Your task to perform on an android device: Find coffee shops on Maps Image 0: 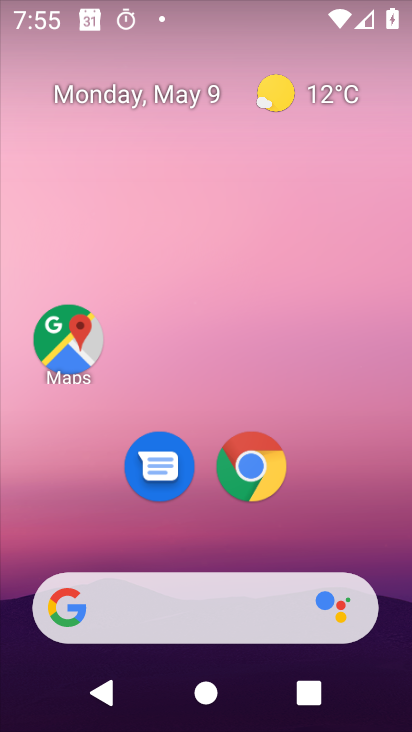
Step 0: drag from (347, 543) to (138, 50)
Your task to perform on an android device: Find coffee shops on Maps Image 1: 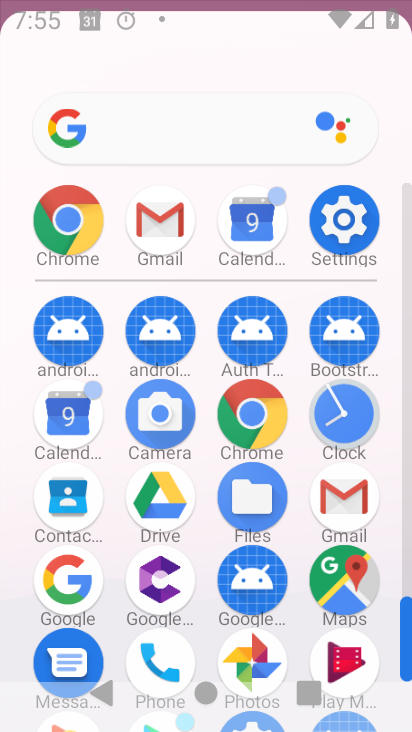
Step 1: drag from (320, 483) to (63, 350)
Your task to perform on an android device: Find coffee shops on Maps Image 2: 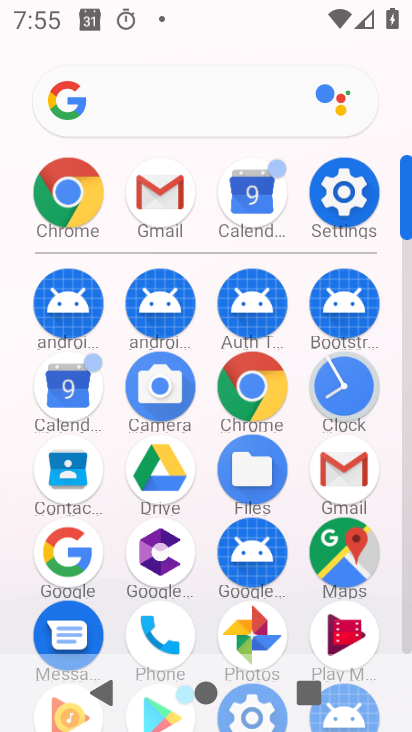
Step 2: click (339, 564)
Your task to perform on an android device: Find coffee shops on Maps Image 3: 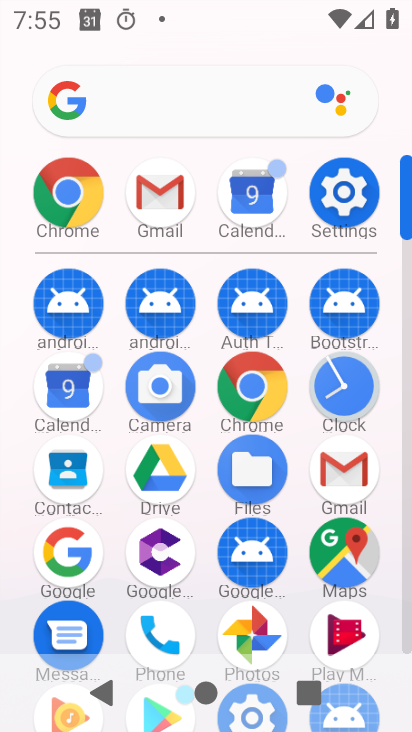
Step 3: click (340, 564)
Your task to perform on an android device: Find coffee shops on Maps Image 4: 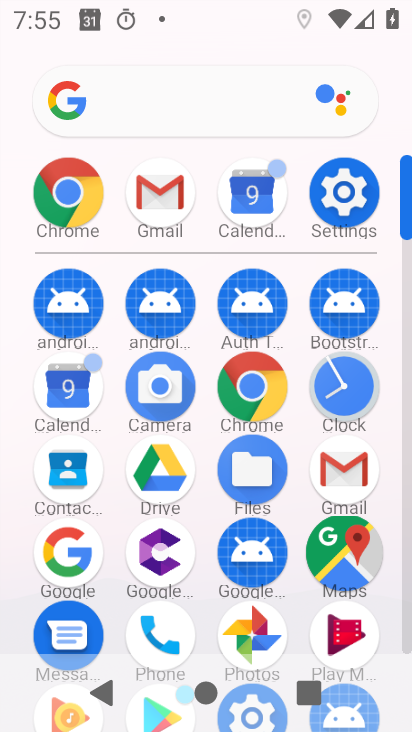
Step 4: click (342, 560)
Your task to perform on an android device: Find coffee shops on Maps Image 5: 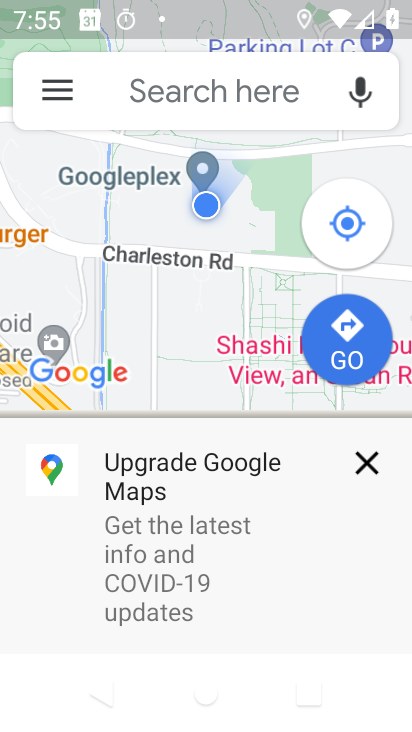
Step 5: click (342, 551)
Your task to perform on an android device: Find coffee shops on Maps Image 6: 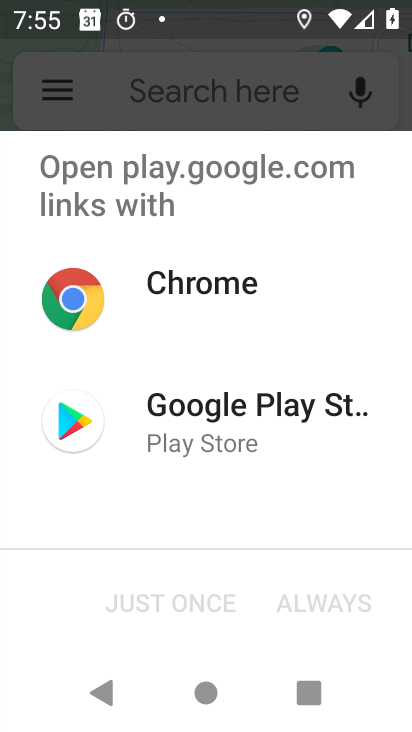
Step 6: press back button
Your task to perform on an android device: Find coffee shops on Maps Image 7: 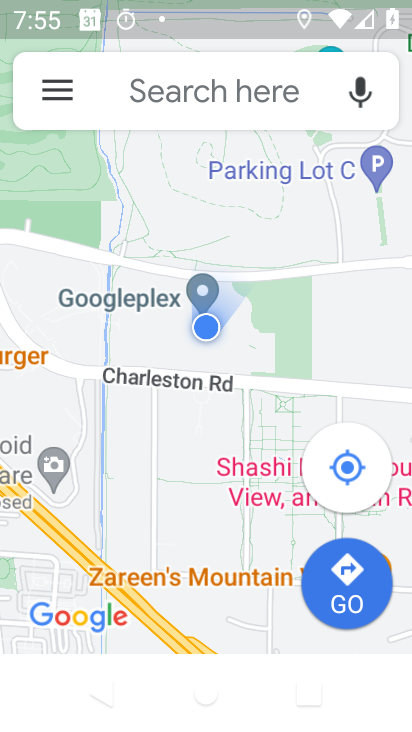
Step 7: click (125, 90)
Your task to perform on an android device: Find coffee shops on Maps Image 8: 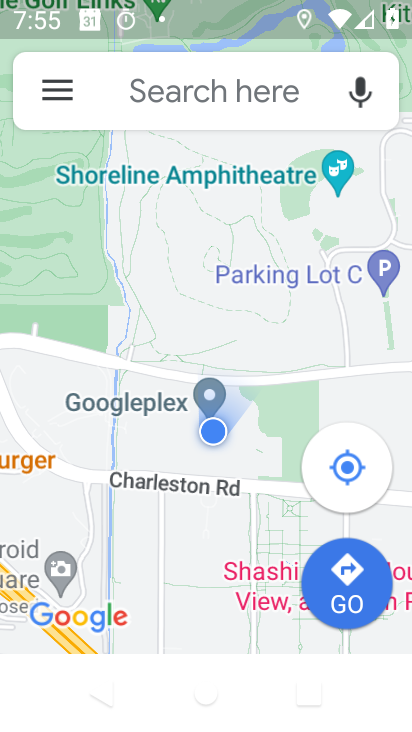
Step 8: click (142, 82)
Your task to perform on an android device: Find coffee shops on Maps Image 9: 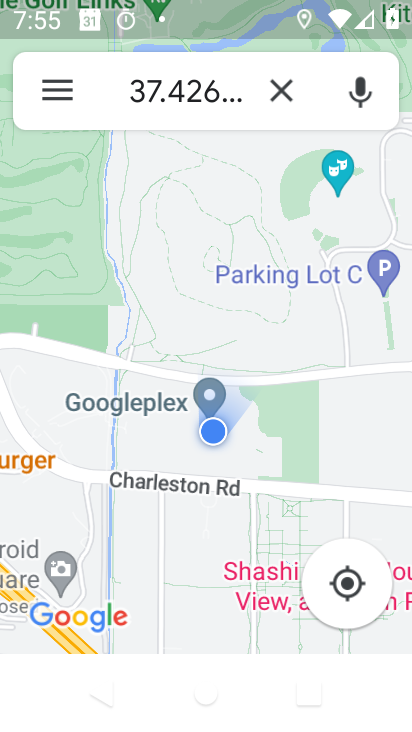
Step 9: click (98, 90)
Your task to perform on an android device: Find coffee shops on Maps Image 10: 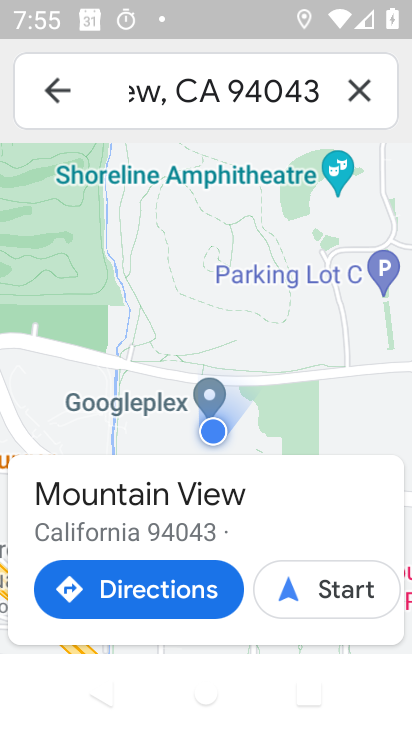
Step 10: click (138, 92)
Your task to perform on an android device: Find coffee shops on Maps Image 11: 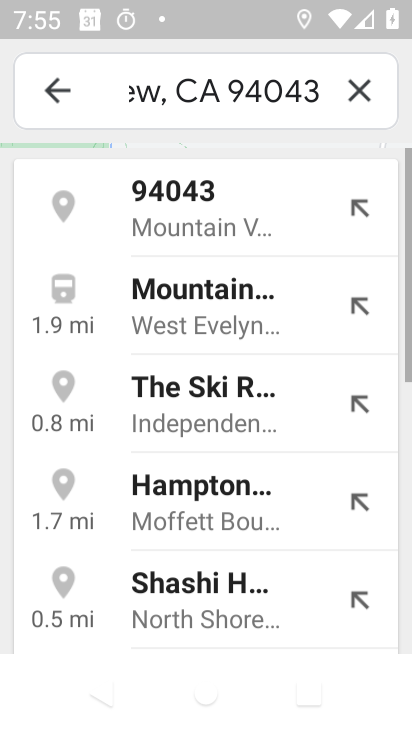
Step 11: click (138, 92)
Your task to perform on an android device: Find coffee shops on Maps Image 12: 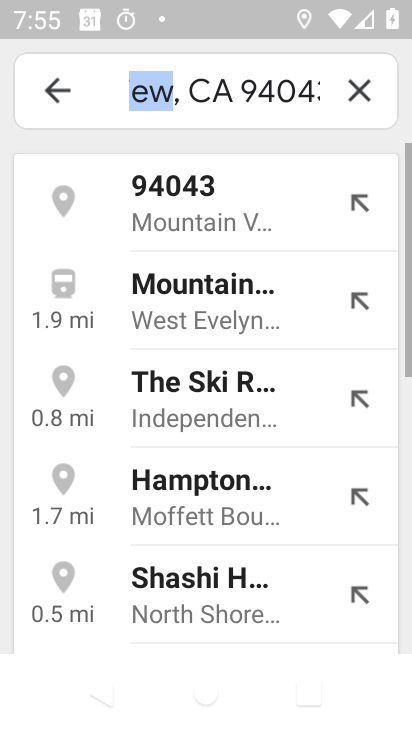
Step 12: click (138, 92)
Your task to perform on an android device: Find coffee shops on Maps Image 13: 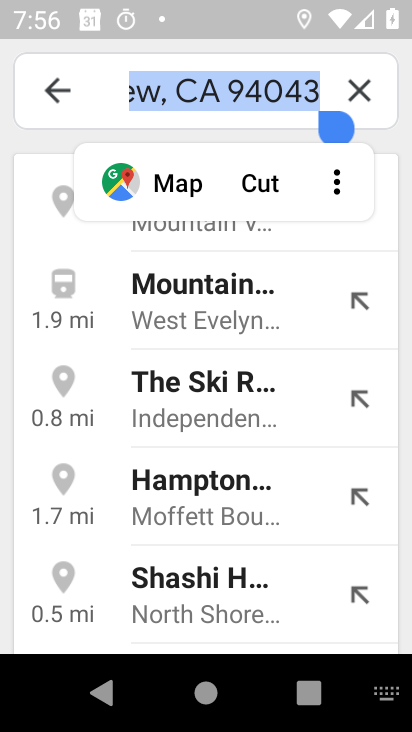
Step 13: click (360, 91)
Your task to perform on an android device: Find coffee shops on Maps Image 14: 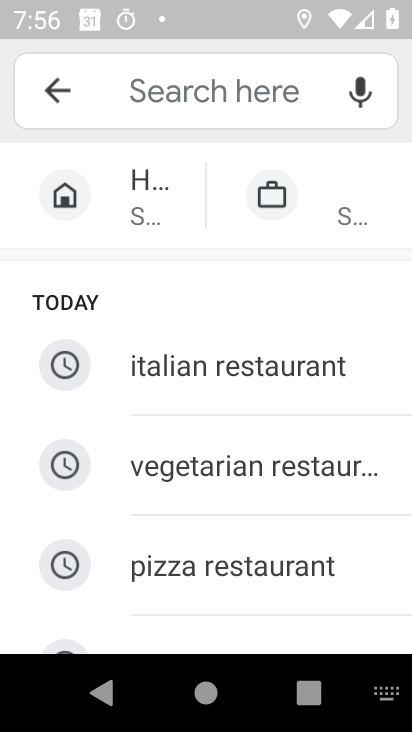
Step 14: type "coffee"
Your task to perform on an android device: Find coffee shops on Maps Image 15: 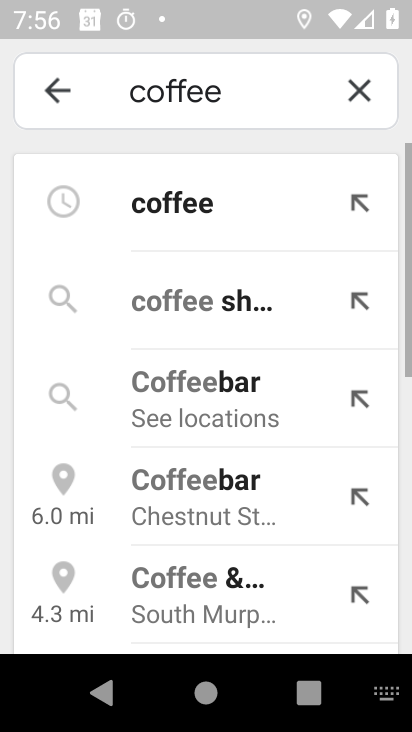
Step 15: click (202, 224)
Your task to perform on an android device: Find coffee shops on Maps Image 16: 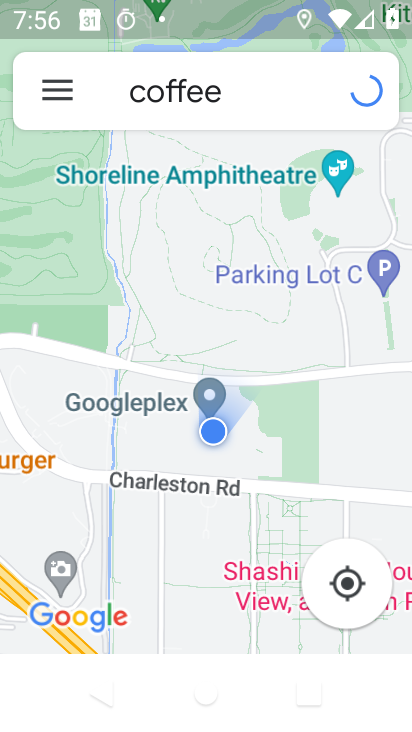
Step 16: task complete